Your task to perform on an android device: Open the stopwatch Image 0: 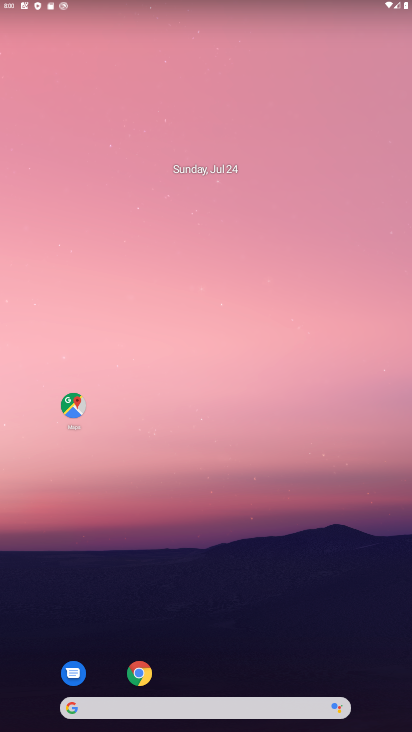
Step 0: click (279, 17)
Your task to perform on an android device: Open the stopwatch Image 1: 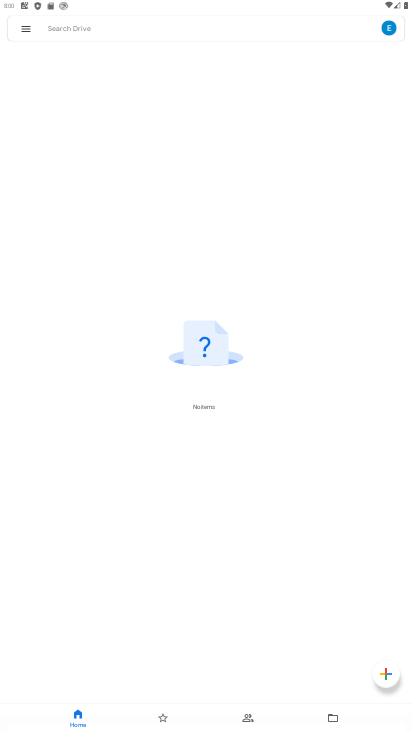
Step 1: press home button
Your task to perform on an android device: Open the stopwatch Image 2: 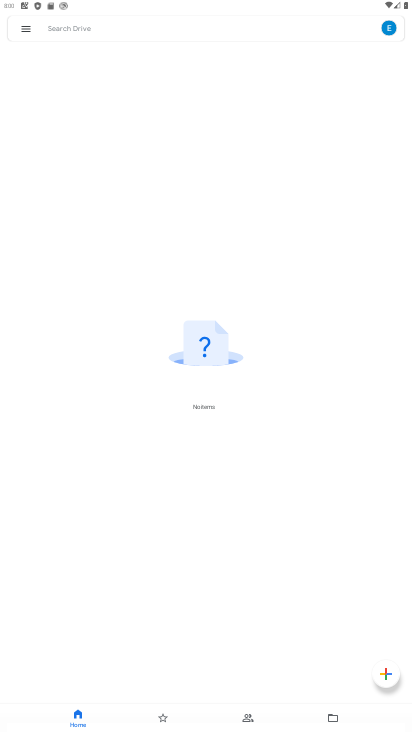
Step 2: press home button
Your task to perform on an android device: Open the stopwatch Image 3: 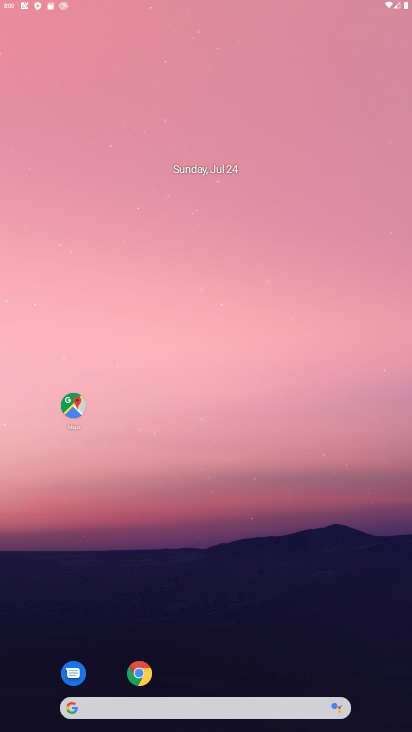
Step 3: press home button
Your task to perform on an android device: Open the stopwatch Image 4: 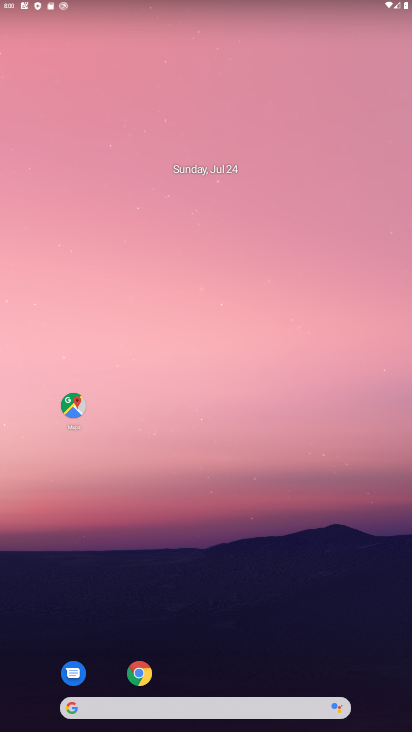
Step 4: press home button
Your task to perform on an android device: Open the stopwatch Image 5: 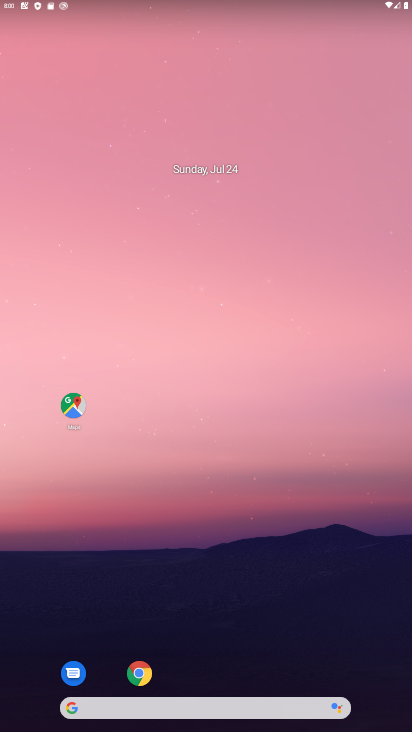
Step 5: drag from (190, 664) to (188, 25)
Your task to perform on an android device: Open the stopwatch Image 6: 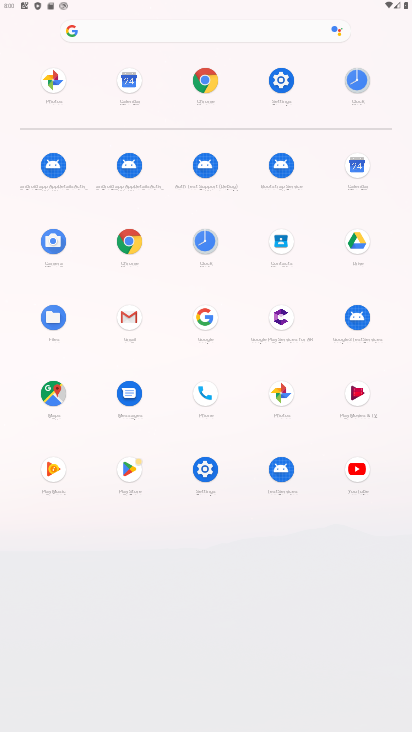
Step 6: click (197, 241)
Your task to perform on an android device: Open the stopwatch Image 7: 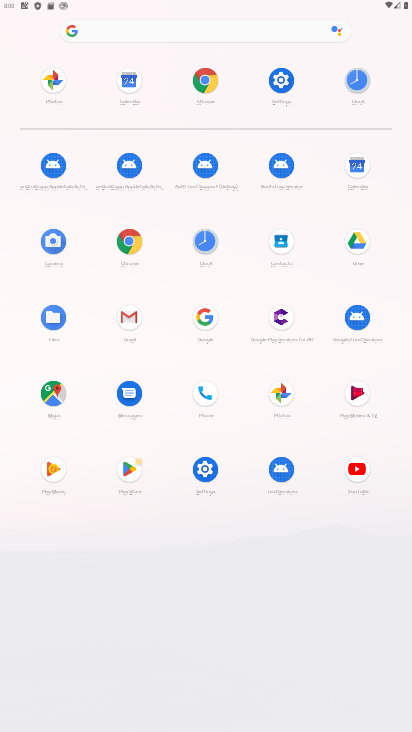
Step 7: click (197, 241)
Your task to perform on an android device: Open the stopwatch Image 8: 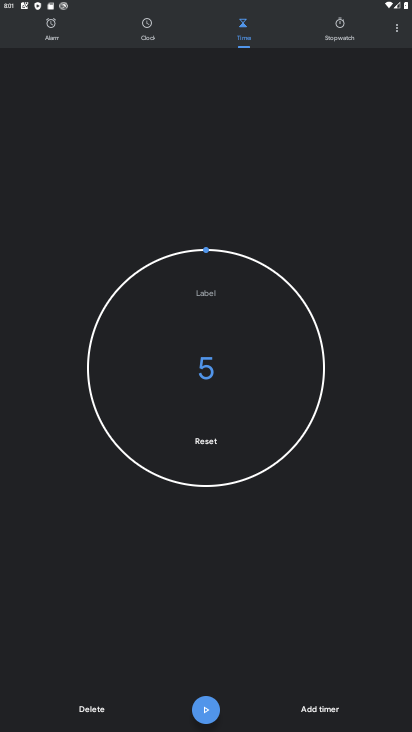
Step 8: click (348, 28)
Your task to perform on an android device: Open the stopwatch Image 9: 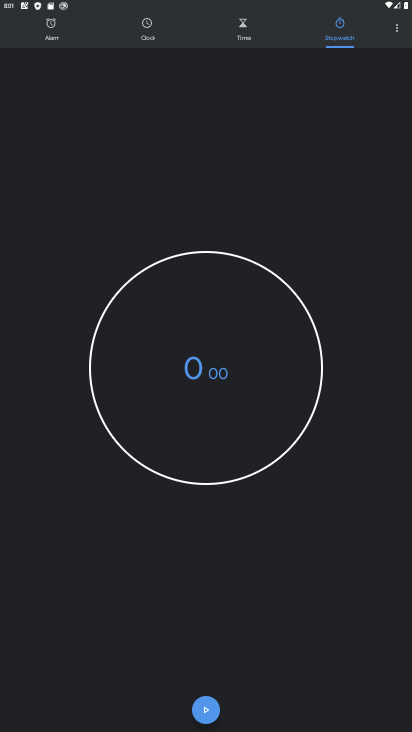
Step 9: click (199, 704)
Your task to perform on an android device: Open the stopwatch Image 10: 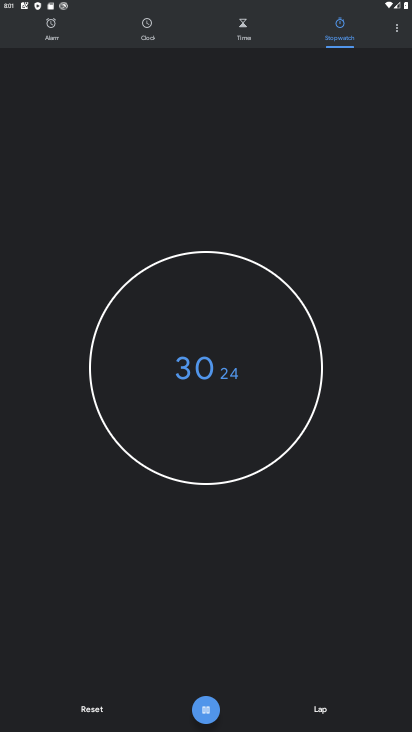
Step 10: task complete